Your task to perform on an android device: add a label to a message in the gmail app Image 0: 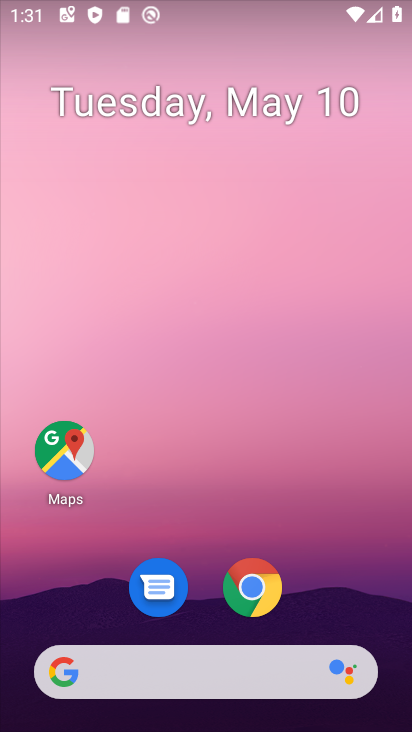
Step 0: drag from (191, 632) to (305, 93)
Your task to perform on an android device: add a label to a message in the gmail app Image 1: 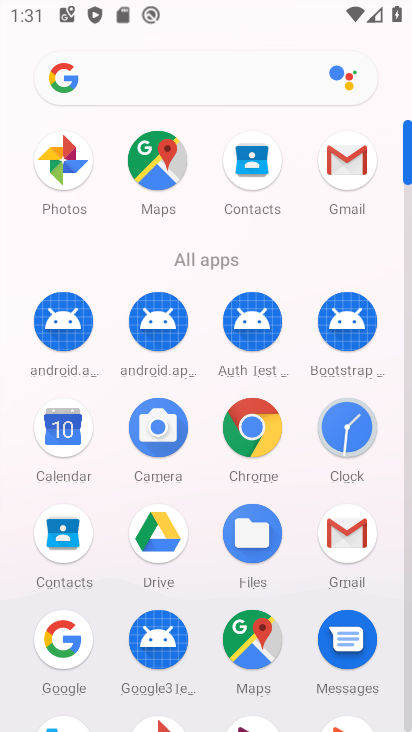
Step 1: click (354, 543)
Your task to perform on an android device: add a label to a message in the gmail app Image 2: 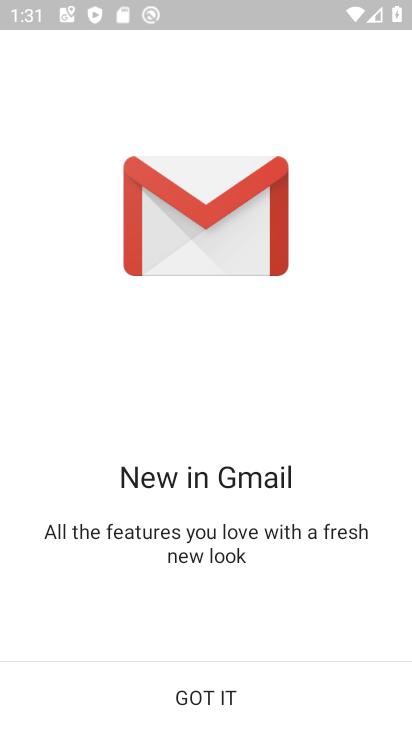
Step 2: click (249, 690)
Your task to perform on an android device: add a label to a message in the gmail app Image 3: 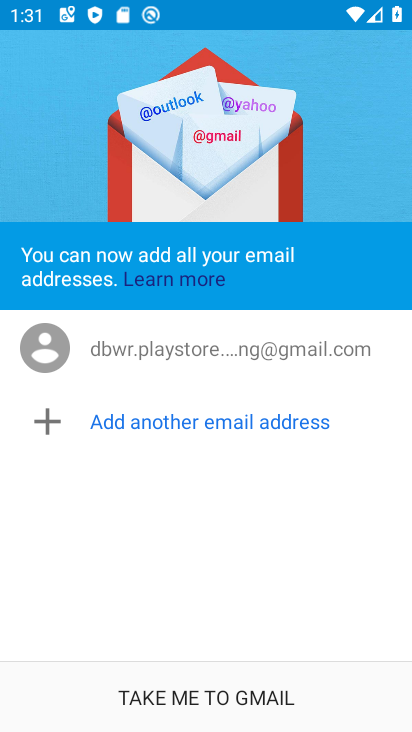
Step 3: click (249, 690)
Your task to perform on an android device: add a label to a message in the gmail app Image 4: 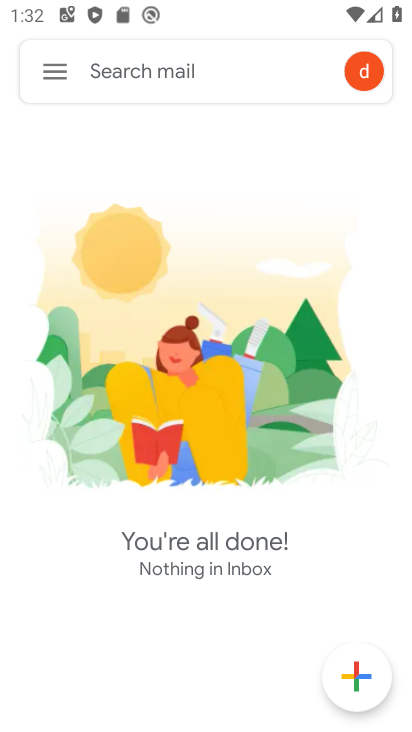
Step 4: click (59, 73)
Your task to perform on an android device: add a label to a message in the gmail app Image 5: 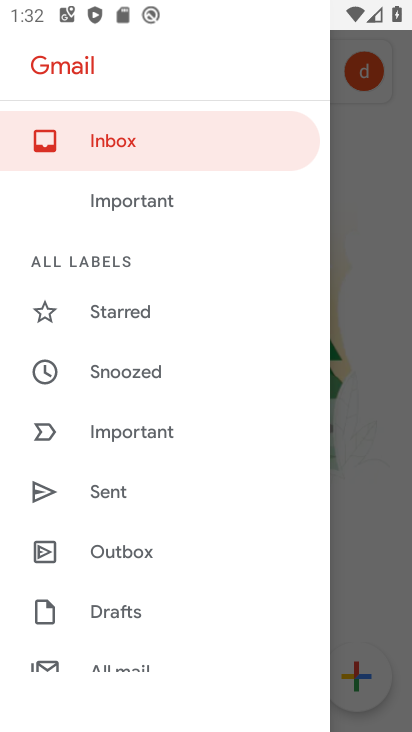
Step 5: drag from (161, 657) to (227, 346)
Your task to perform on an android device: add a label to a message in the gmail app Image 6: 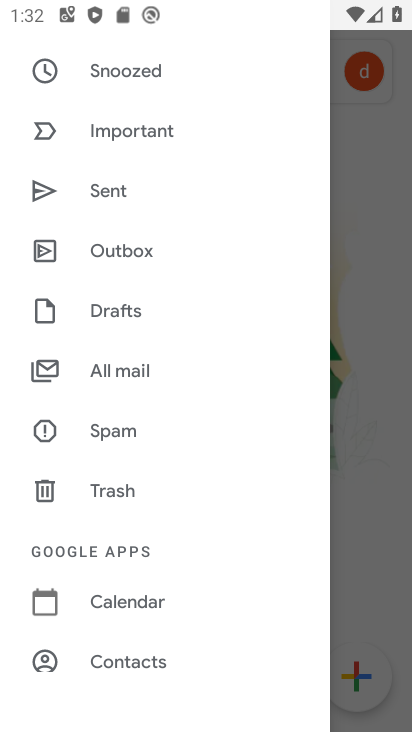
Step 6: click (160, 370)
Your task to perform on an android device: add a label to a message in the gmail app Image 7: 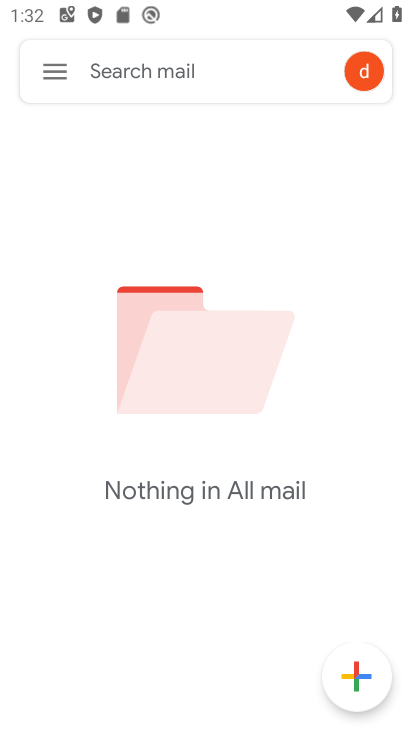
Step 7: task complete